Your task to perform on an android device: turn off sleep mode Image 0: 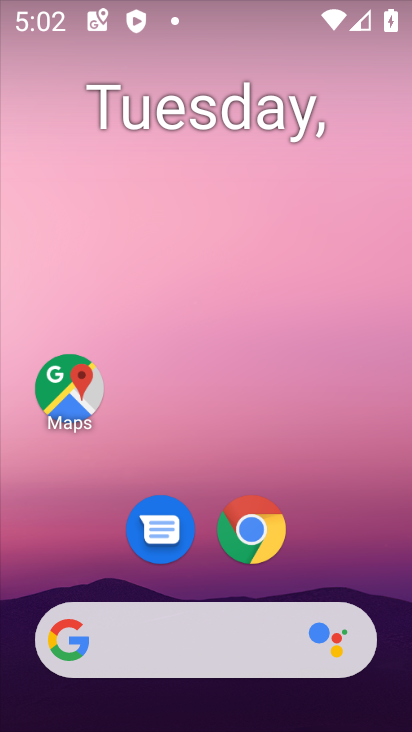
Step 0: drag from (312, 243) to (295, 177)
Your task to perform on an android device: turn off sleep mode Image 1: 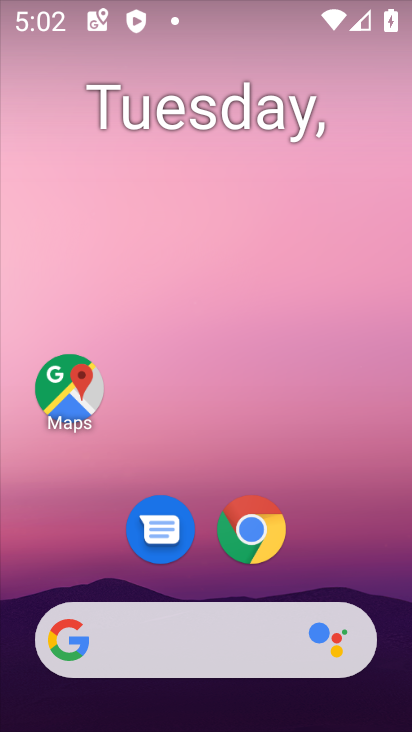
Step 1: drag from (330, 253) to (306, 72)
Your task to perform on an android device: turn off sleep mode Image 2: 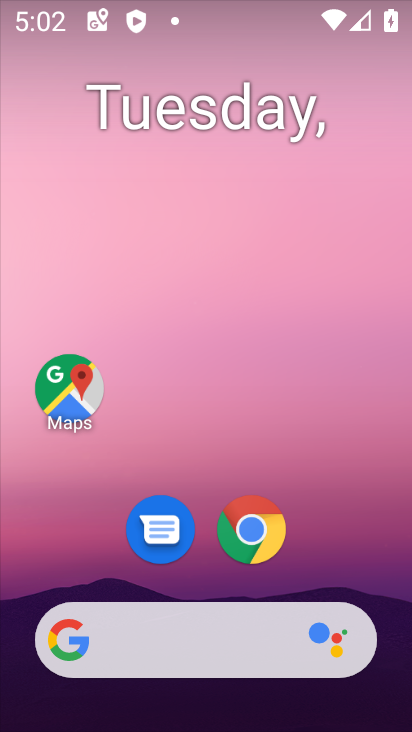
Step 2: drag from (378, 526) to (310, 90)
Your task to perform on an android device: turn off sleep mode Image 3: 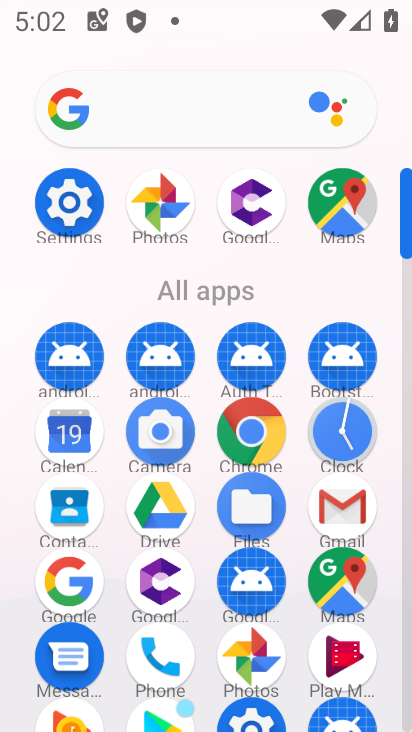
Step 3: click (69, 209)
Your task to perform on an android device: turn off sleep mode Image 4: 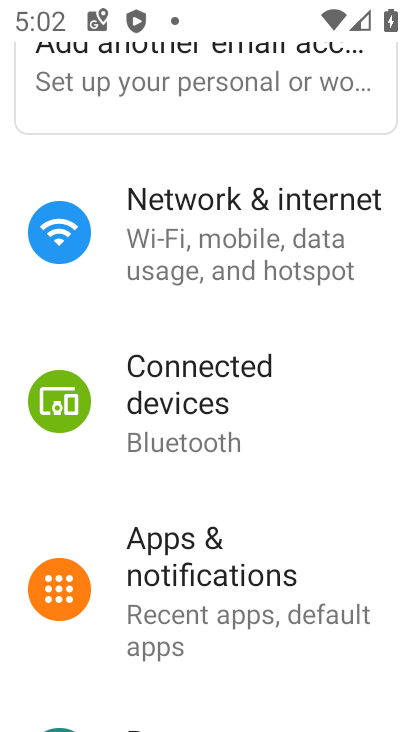
Step 4: drag from (284, 494) to (261, 211)
Your task to perform on an android device: turn off sleep mode Image 5: 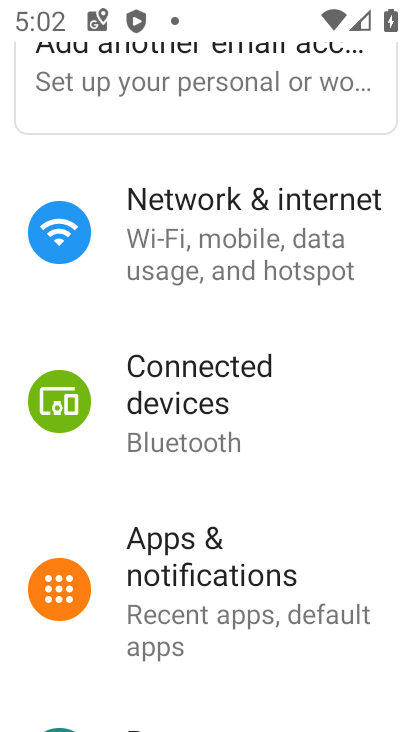
Step 5: drag from (353, 637) to (314, 292)
Your task to perform on an android device: turn off sleep mode Image 6: 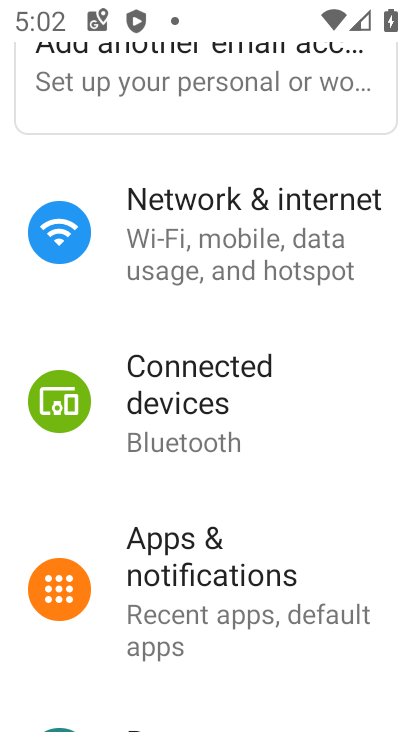
Step 6: drag from (338, 502) to (309, 314)
Your task to perform on an android device: turn off sleep mode Image 7: 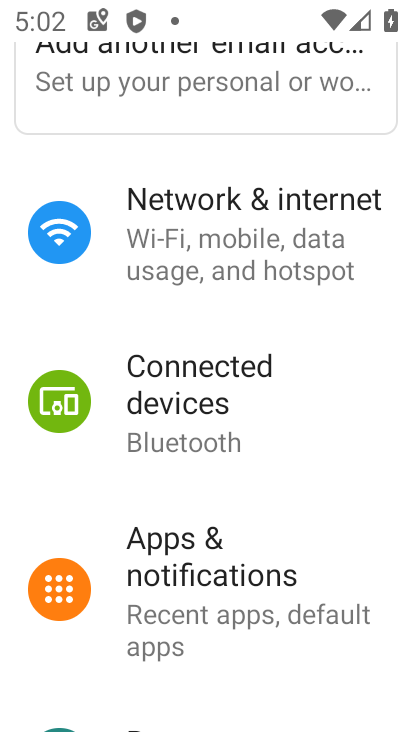
Step 7: drag from (342, 480) to (329, 331)
Your task to perform on an android device: turn off sleep mode Image 8: 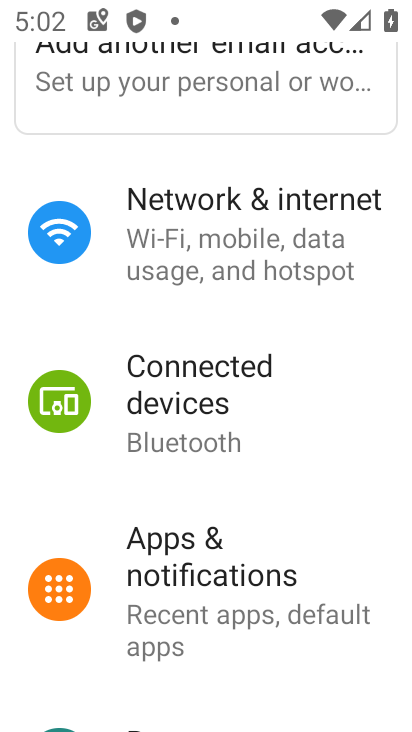
Step 8: drag from (365, 388) to (366, 333)
Your task to perform on an android device: turn off sleep mode Image 9: 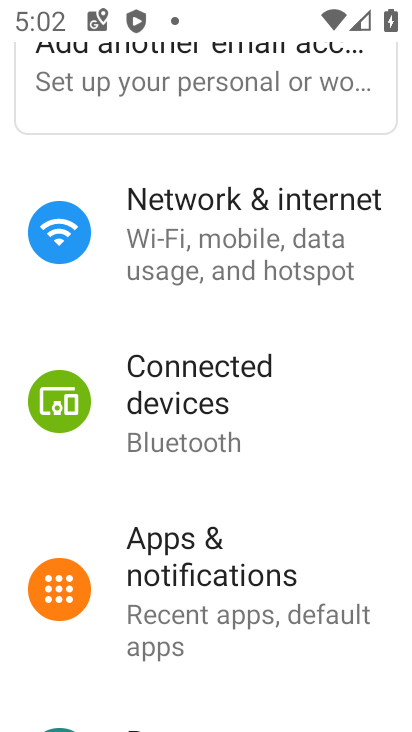
Step 9: drag from (357, 345) to (360, 192)
Your task to perform on an android device: turn off sleep mode Image 10: 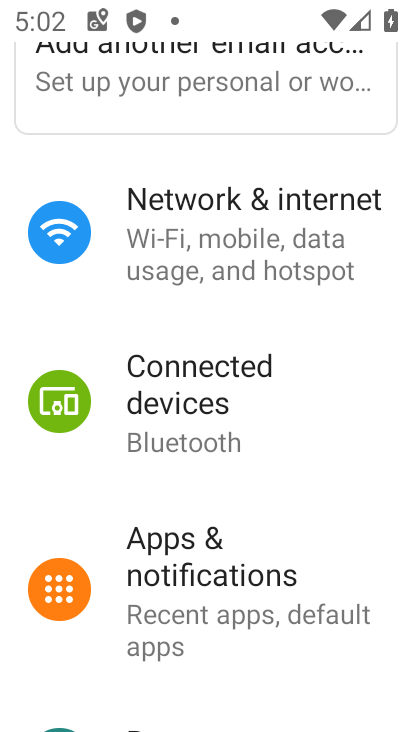
Step 10: drag from (354, 368) to (344, 300)
Your task to perform on an android device: turn off sleep mode Image 11: 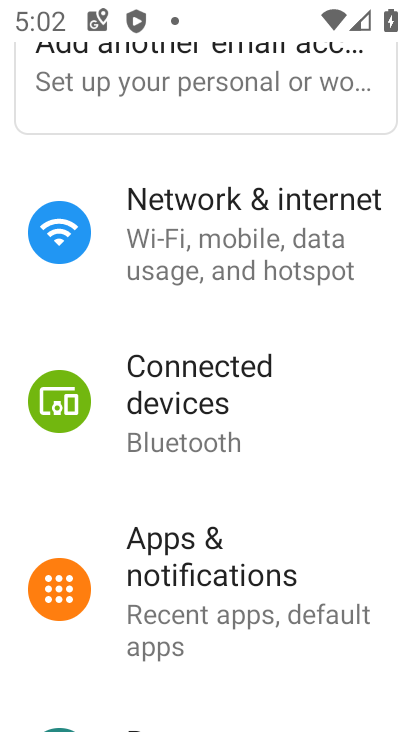
Step 11: drag from (360, 640) to (340, 266)
Your task to perform on an android device: turn off sleep mode Image 12: 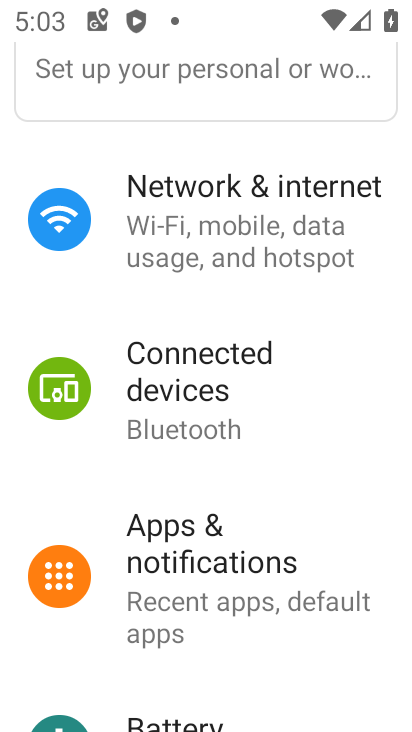
Step 12: drag from (345, 464) to (315, 193)
Your task to perform on an android device: turn off sleep mode Image 13: 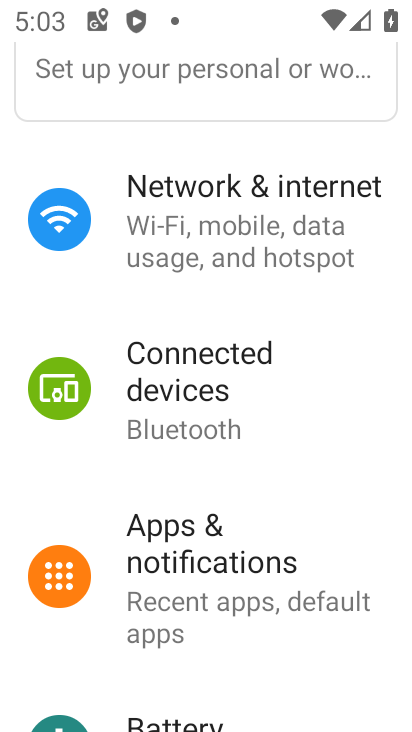
Step 13: drag from (388, 693) to (329, 314)
Your task to perform on an android device: turn off sleep mode Image 14: 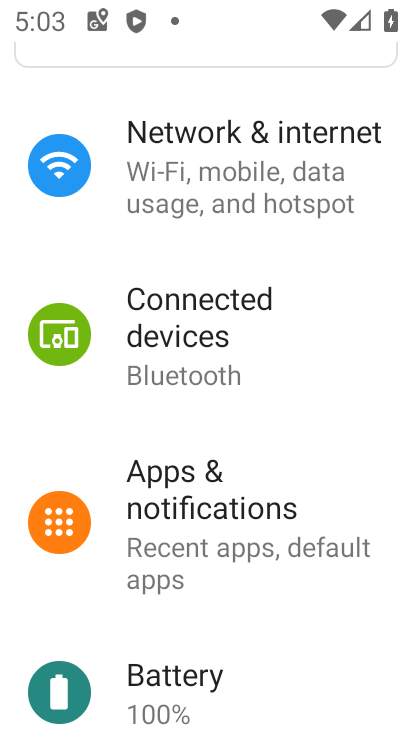
Step 14: drag from (358, 504) to (349, 320)
Your task to perform on an android device: turn off sleep mode Image 15: 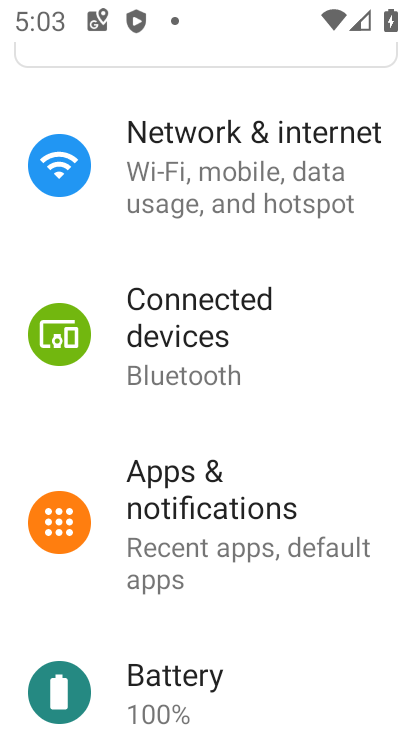
Step 15: drag from (355, 667) to (369, 226)
Your task to perform on an android device: turn off sleep mode Image 16: 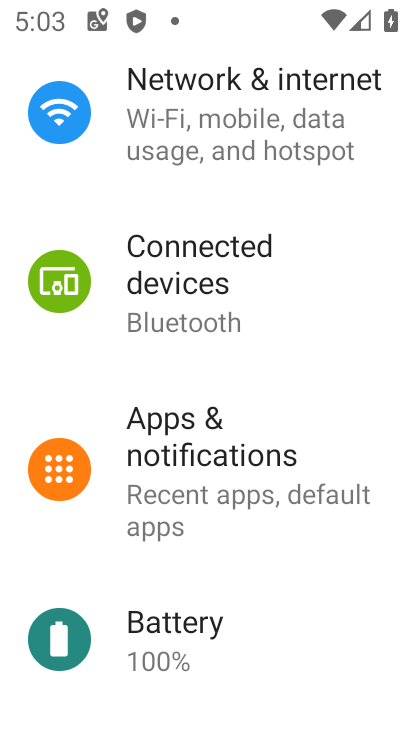
Step 16: drag from (345, 650) to (346, 239)
Your task to perform on an android device: turn off sleep mode Image 17: 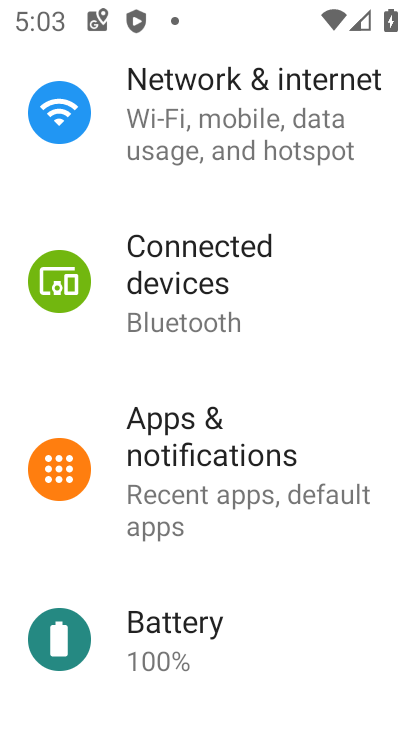
Step 17: drag from (360, 657) to (358, 229)
Your task to perform on an android device: turn off sleep mode Image 18: 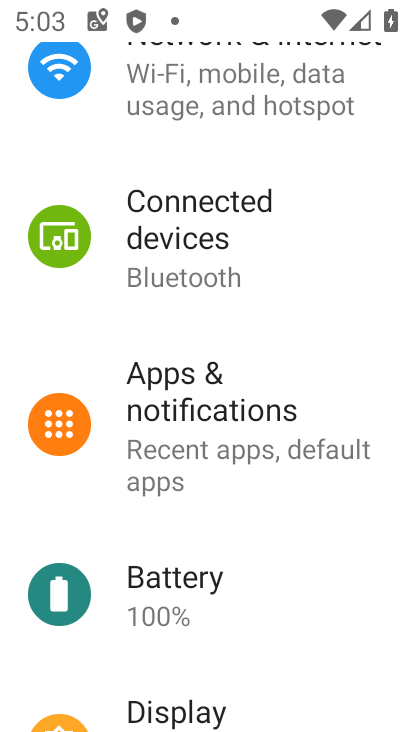
Step 18: drag from (355, 583) to (371, 199)
Your task to perform on an android device: turn off sleep mode Image 19: 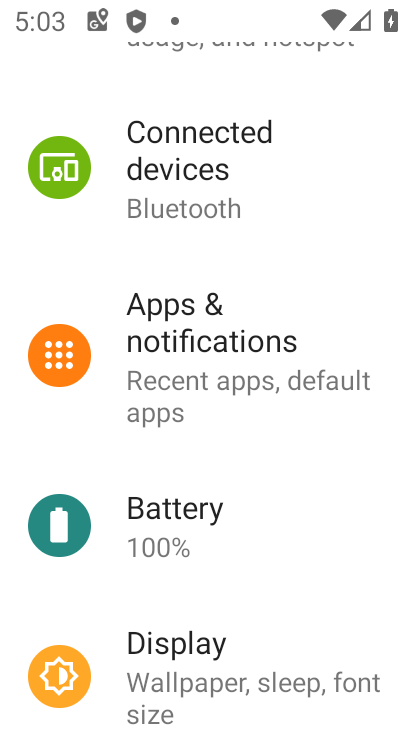
Step 19: drag from (336, 597) to (305, 279)
Your task to perform on an android device: turn off sleep mode Image 20: 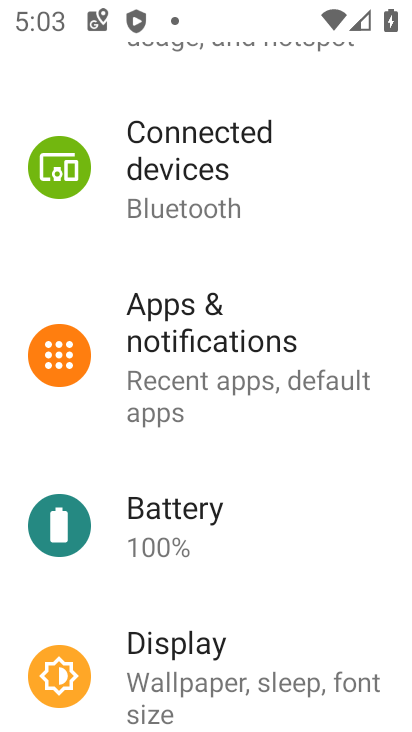
Step 20: click (181, 673)
Your task to perform on an android device: turn off sleep mode Image 21: 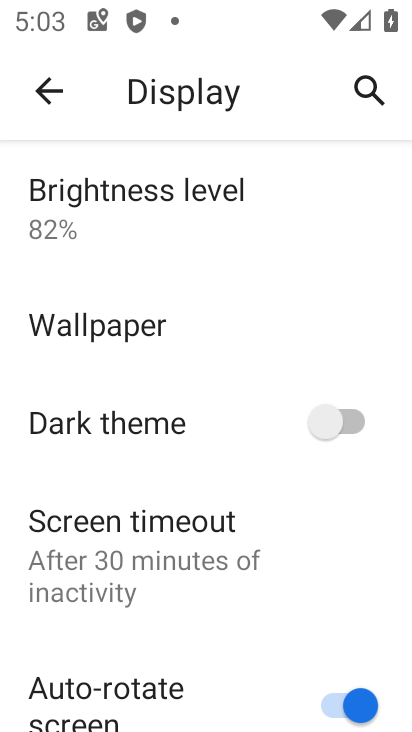
Step 21: drag from (251, 645) to (266, 211)
Your task to perform on an android device: turn off sleep mode Image 22: 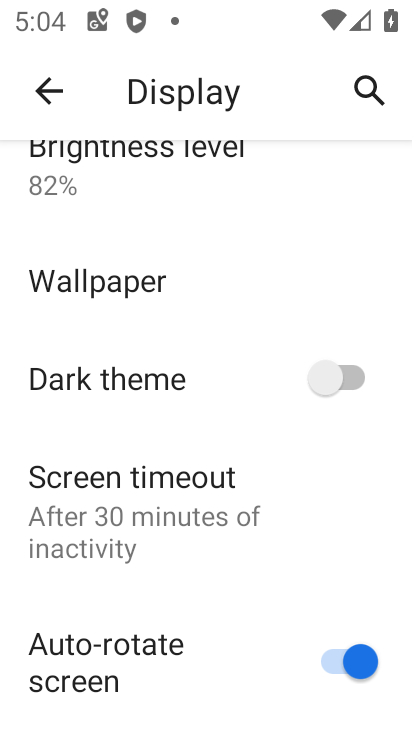
Step 22: drag from (241, 459) to (220, 235)
Your task to perform on an android device: turn off sleep mode Image 23: 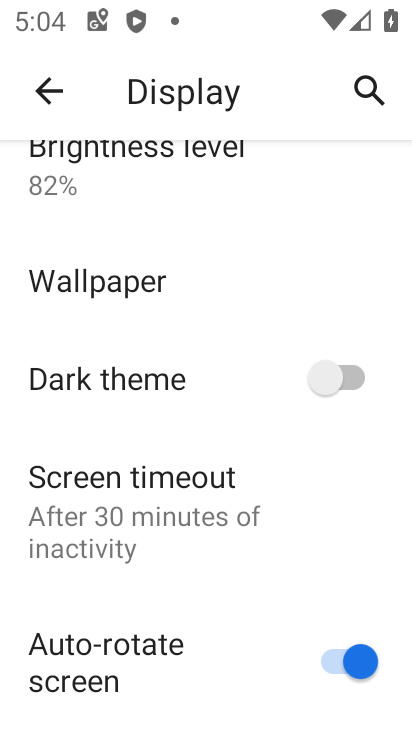
Step 23: click (85, 545)
Your task to perform on an android device: turn off sleep mode Image 24: 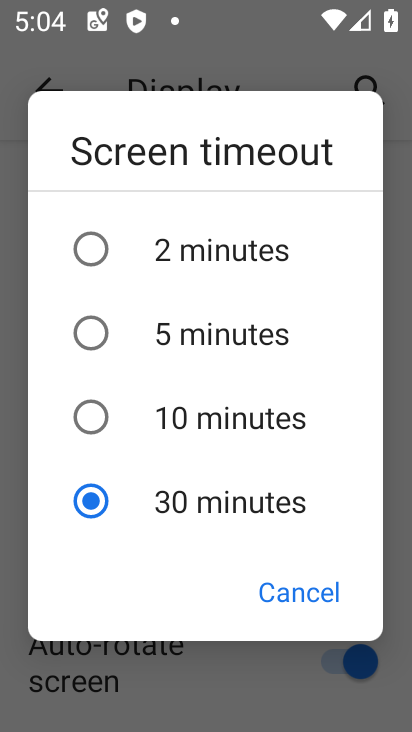
Step 24: task complete